Your task to perform on an android device: Clear the cart on bestbuy. Image 0: 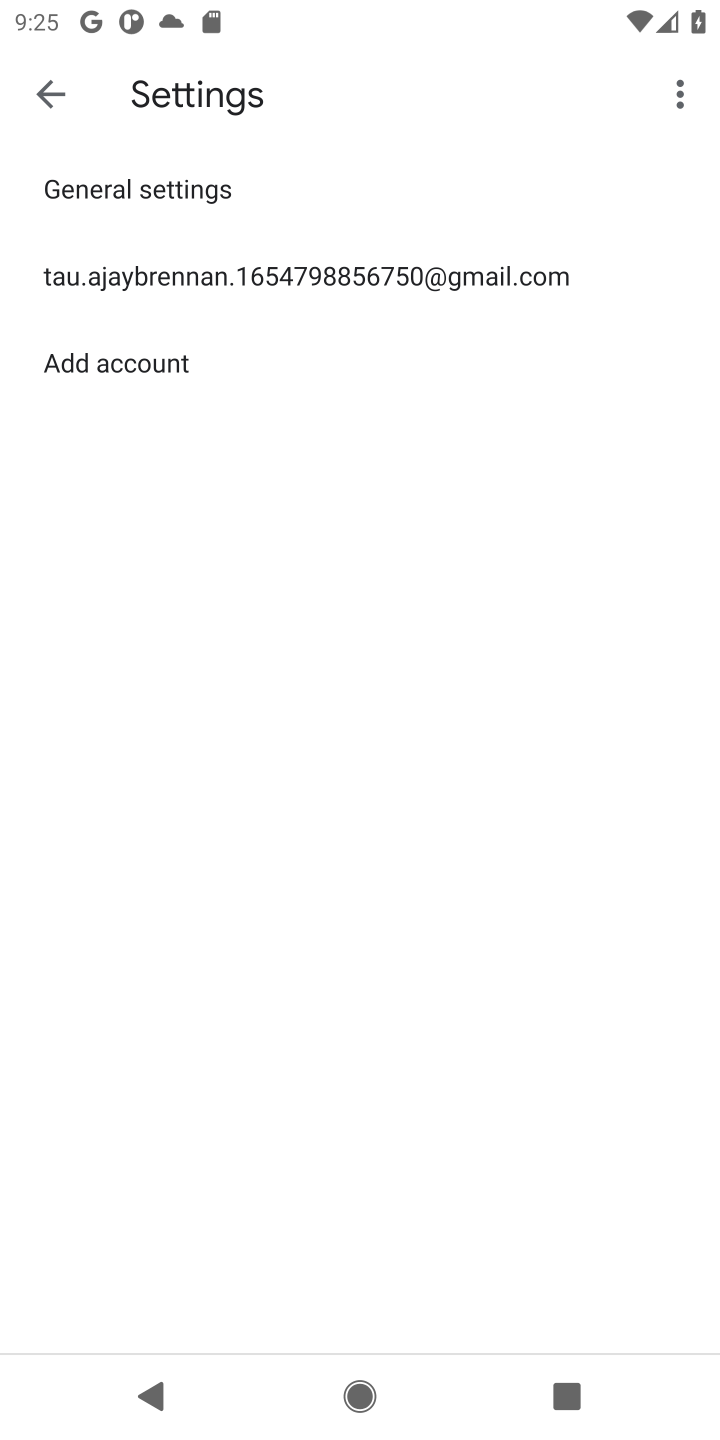
Step 0: press home button
Your task to perform on an android device: Clear the cart on bestbuy. Image 1: 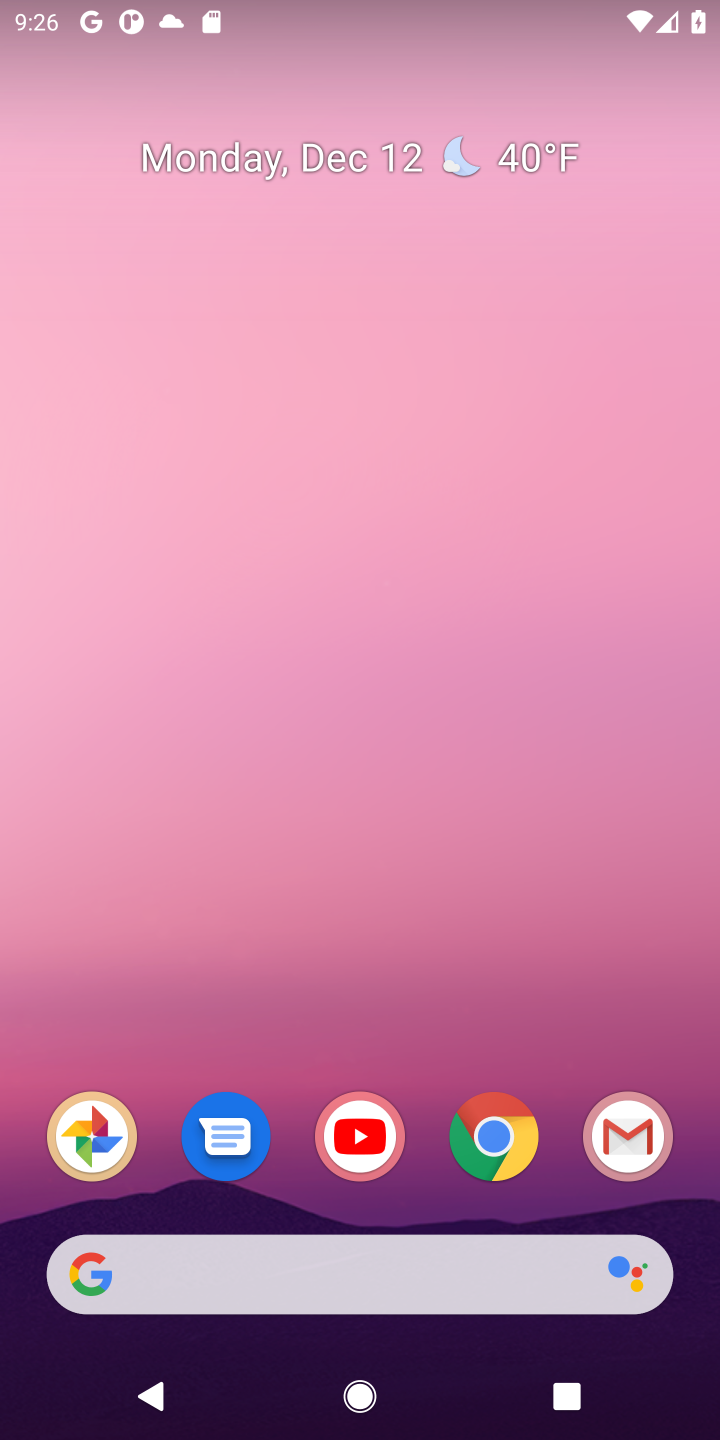
Step 1: click (500, 1142)
Your task to perform on an android device: Clear the cart on bestbuy. Image 2: 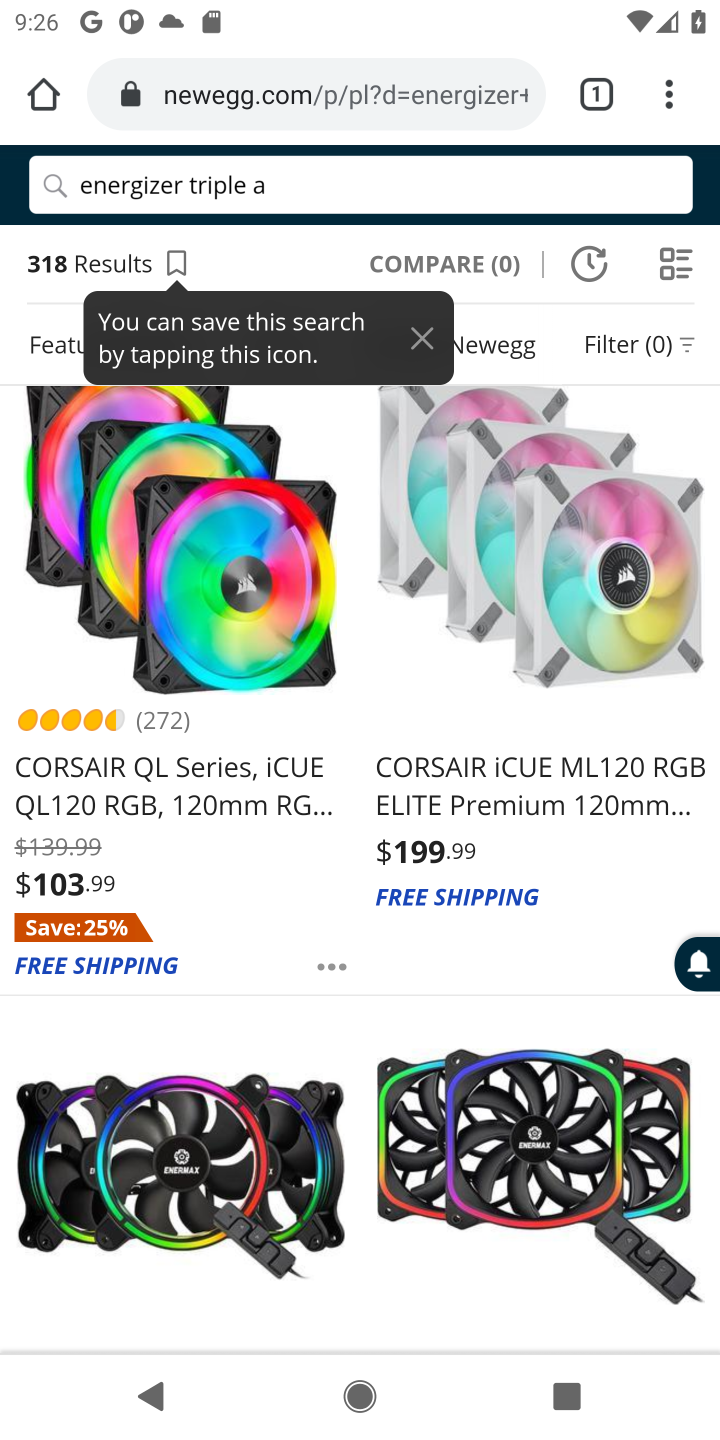
Step 2: click (276, 98)
Your task to perform on an android device: Clear the cart on bestbuy. Image 3: 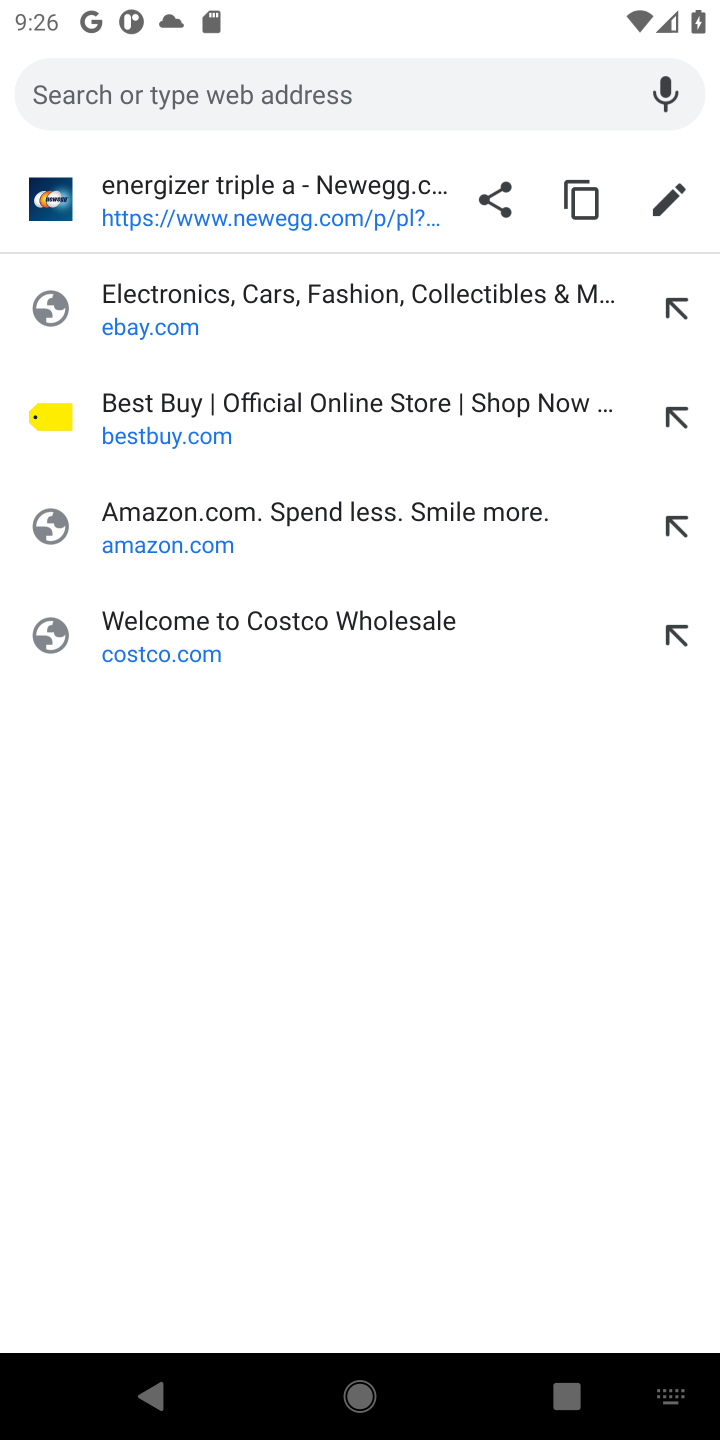
Step 3: click (157, 438)
Your task to perform on an android device: Clear the cart on bestbuy. Image 4: 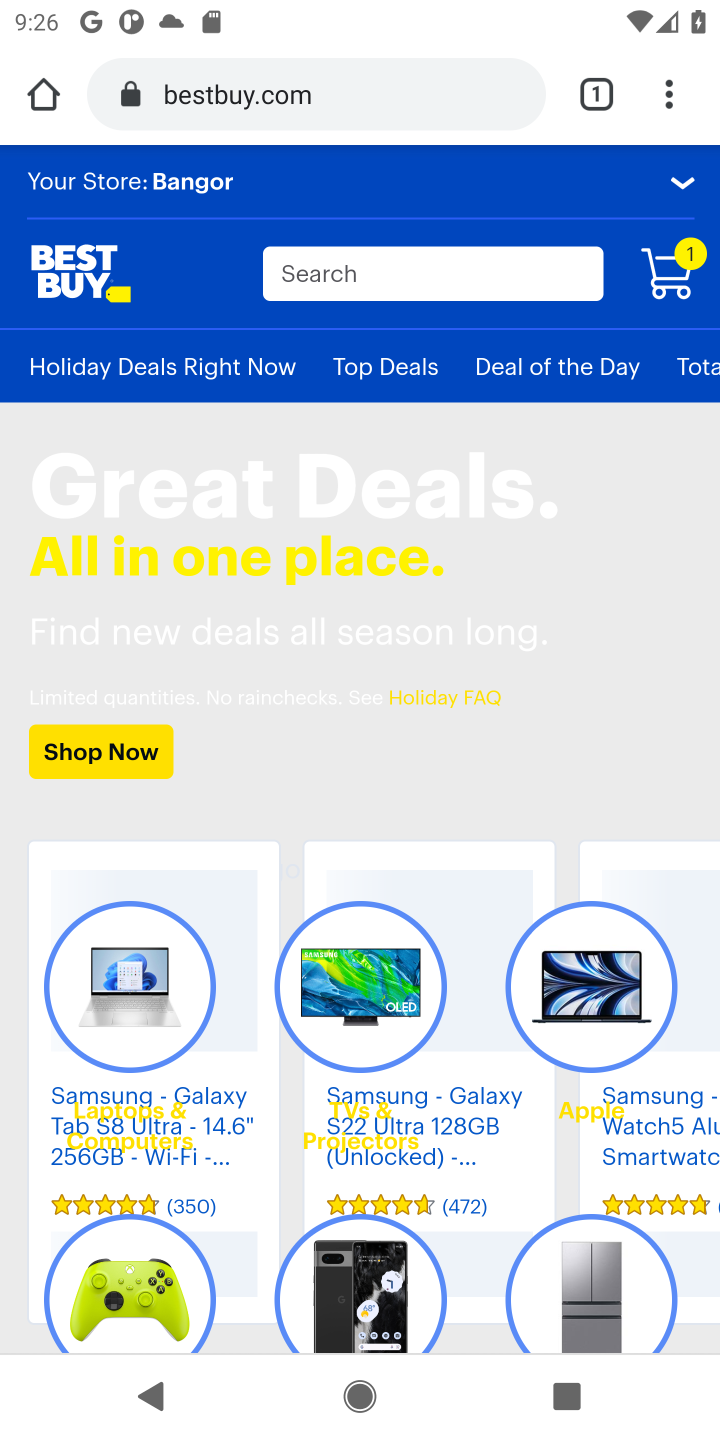
Step 4: click (668, 286)
Your task to perform on an android device: Clear the cart on bestbuy. Image 5: 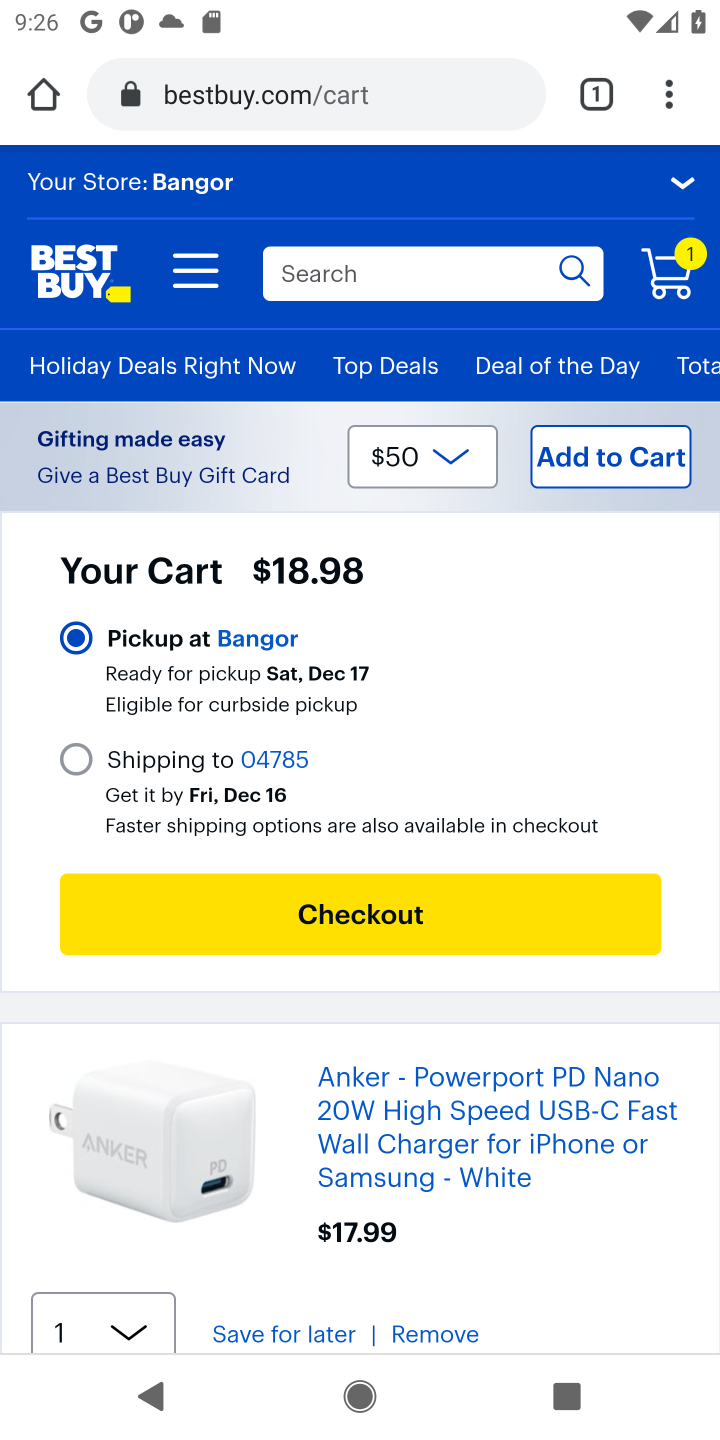
Step 5: click (411, 1330)
Your task to perform on an android device: Clear the cart on bestbuy. Image 6: 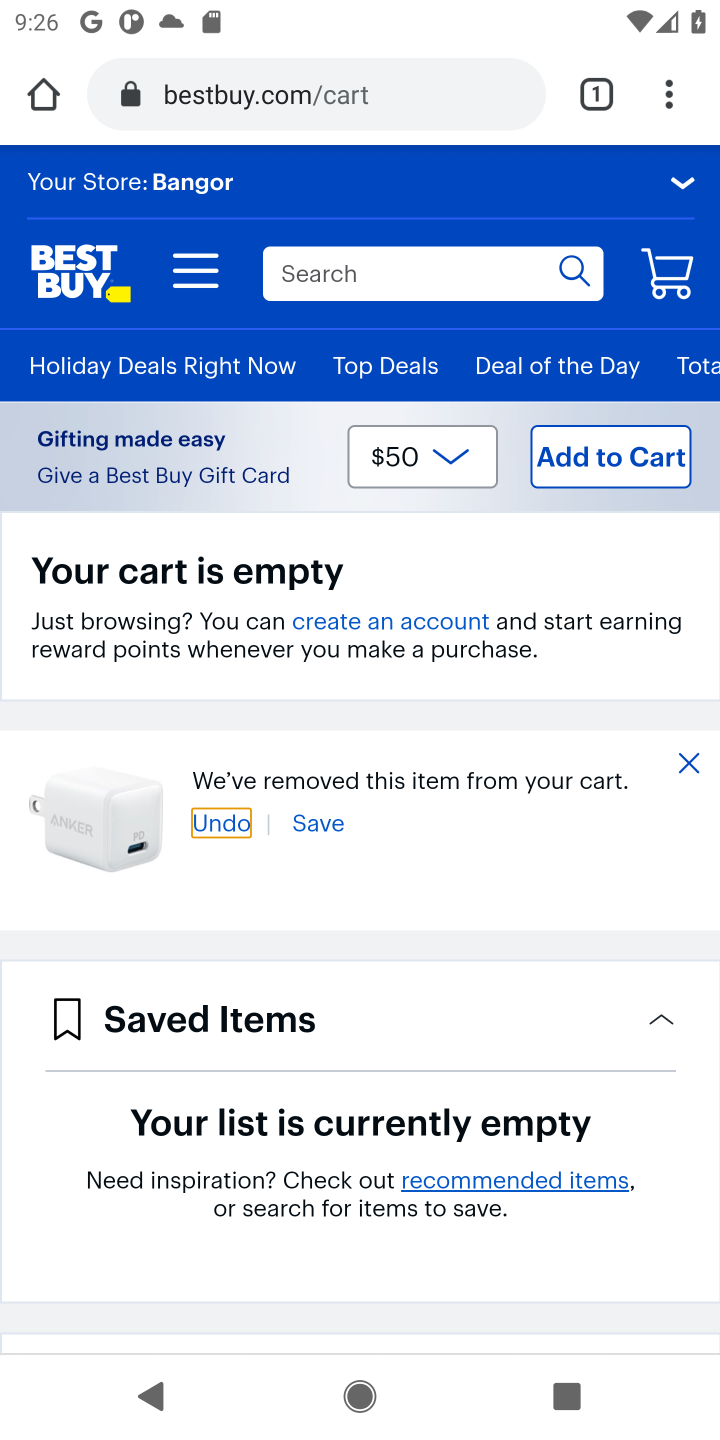
Step 6: task complete